Your task to perform on an android device: turn smart compose on in the gmail app Image 0: 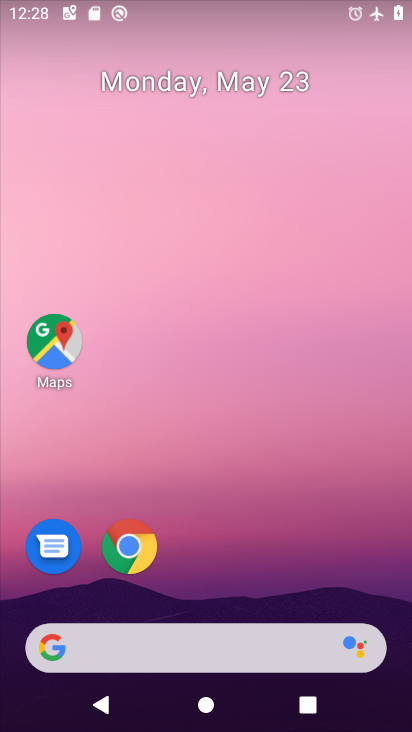
Step 0: drag from (232, 590) to (286, 118)
Your task to perform on an android device: turn smart compose on in the gmail app Image 1: 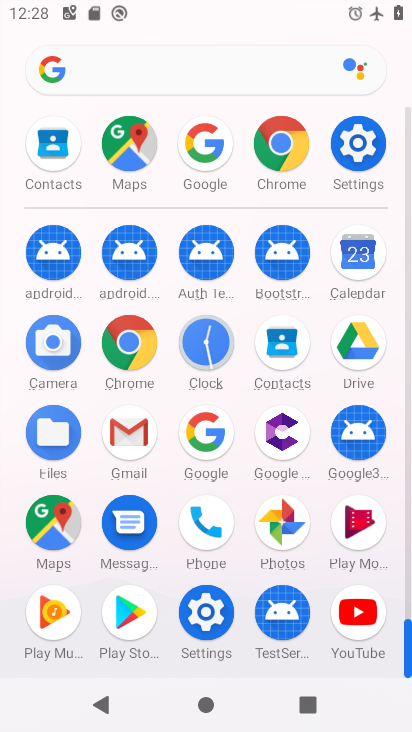
Step 1: click (144, 426)
Your task to perform on an android device: turn smart compose on in the gmail app Image 2: 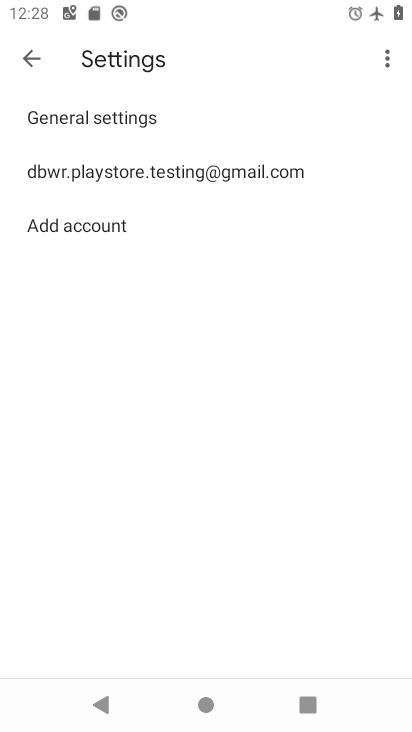
Step 2: click (194, 174)
Your task to perform on an android device: turn smart compose on in the gmail app Image 3: 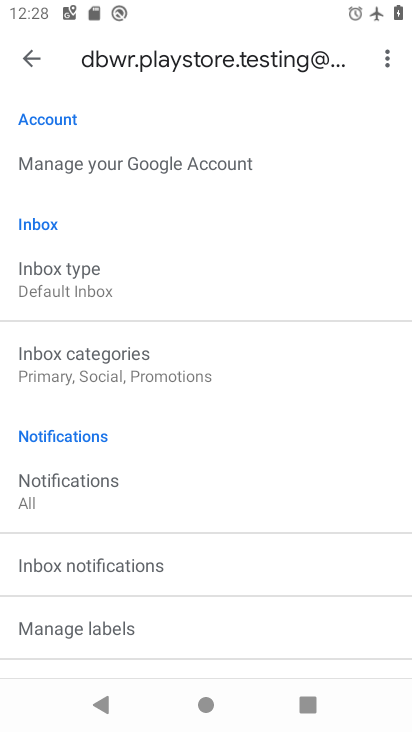
Step 3: task complete